Your task to perform on an android device: Search for Italian restaurants on Maps Image 0: 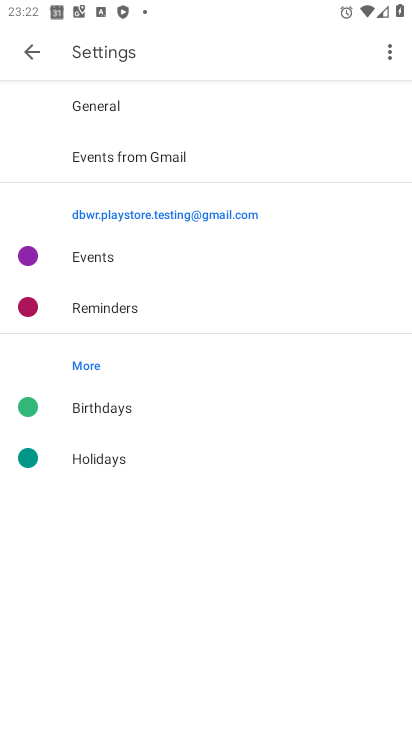
Step 0: drag from (397, 689) to (381, 130)
Your task to perform on an android device: Search for Italian restaurants on Maps Image 1: 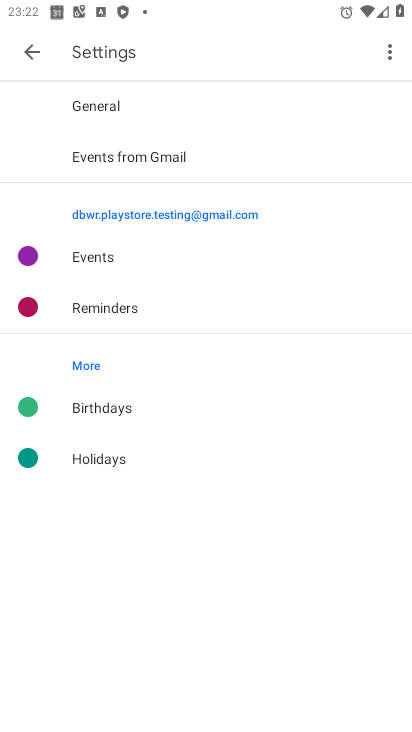
Step 1: press back button
Your task to perform on an android device: Search for Italian restaurants on Maps Image 2: 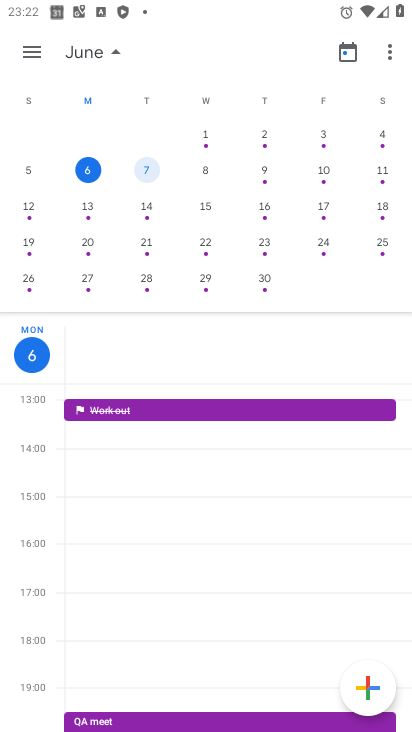
Step 2: press back button
Your task to perform on an android device: Search for Italian restaurants on Maps Image 3: 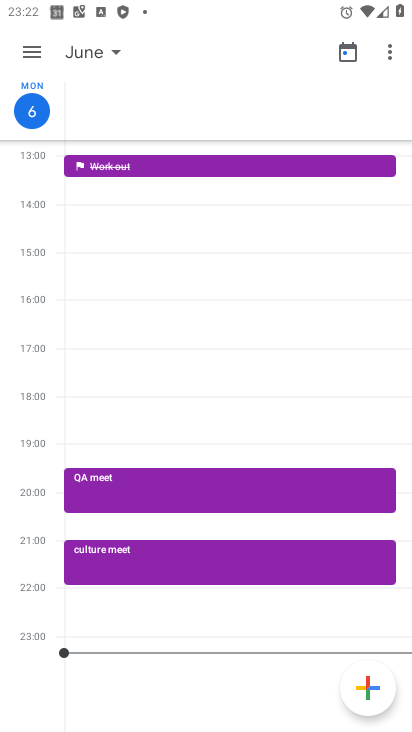
Step 3: press back button
Your task to perform on an android device: Search for Italian restaurants on Maps Image 4: 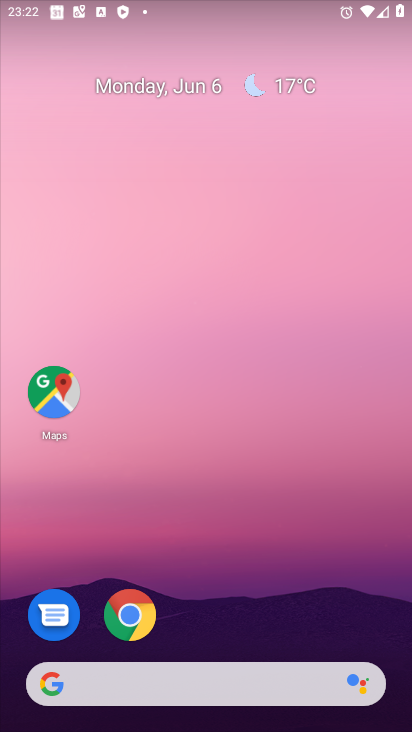
Step 4: click (54, 400)
Your task to perform on an android device: Search for Italian restaurants on Maps Image 5: 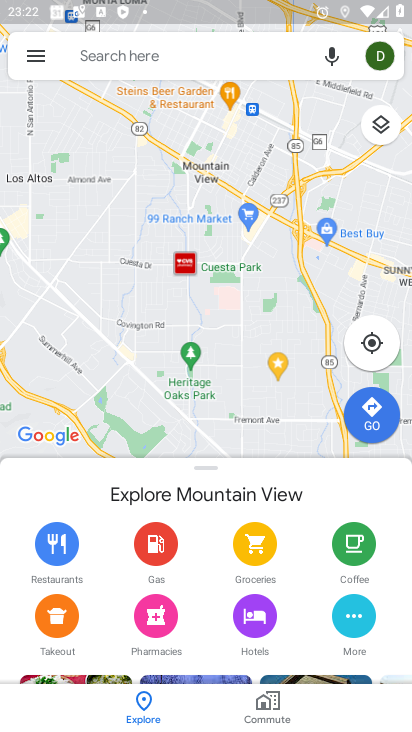
Step 5: click (89, 59)
Your task to perform on an android device: Search for Italian restaurants on Maps Image 6: 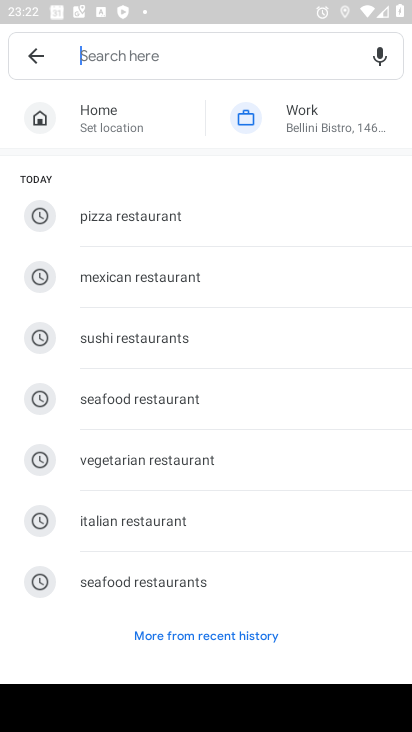
Step 6: type "Italian restaurants"
Your task to perform on an android device: Search for Italian restaurants on Maps Image 7: 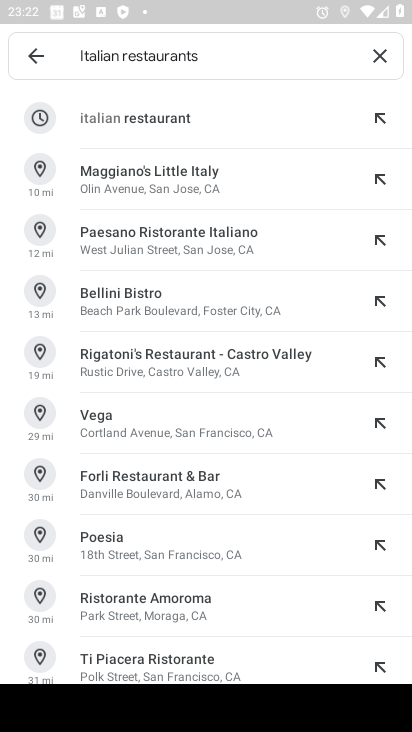
Step 7: click (166, 110)
Your task to perform on an android device: Search for Italian restaurants on Maps Image 8: 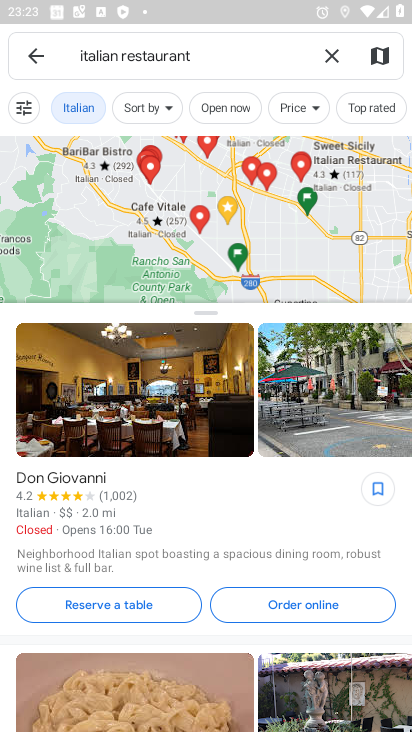
Step 8: task complete